Your task to perform on an android device: see creations saved in the google photos Image 0: 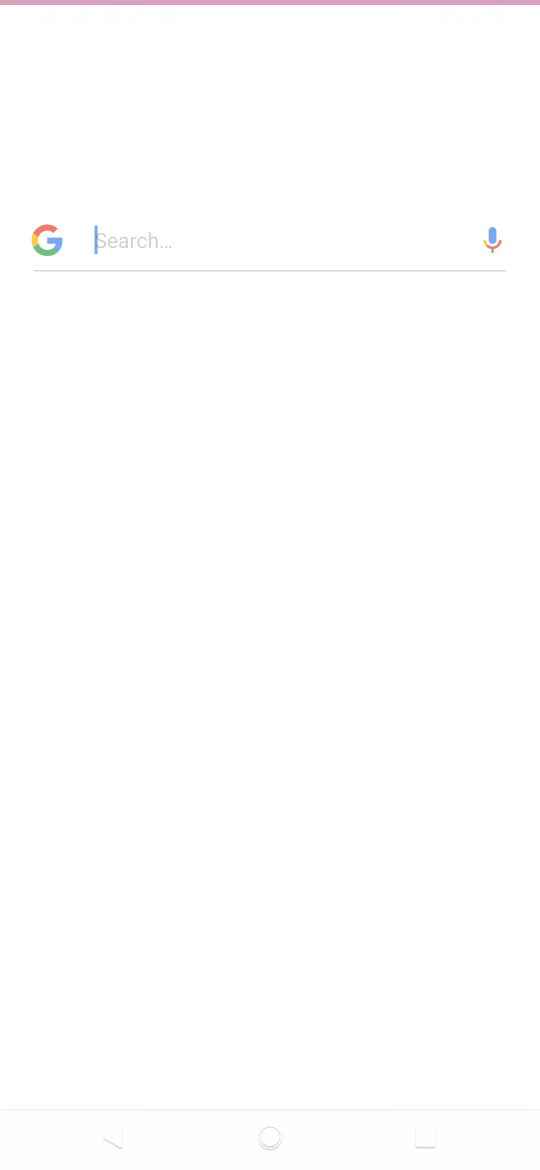
Step 0: press home button
Your task to perform on an android device: see creations saved in the google photos Image 1: 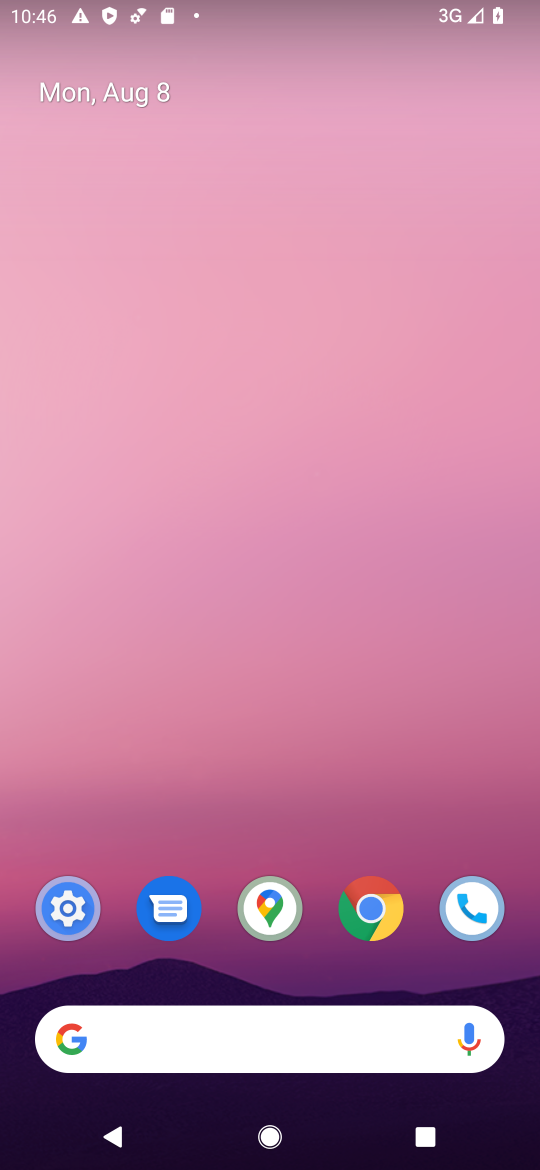
Step 1: drag from (318, 860) to (332, 14)
Your task to perform on an android device: see creations saved in the google photos Image 2: 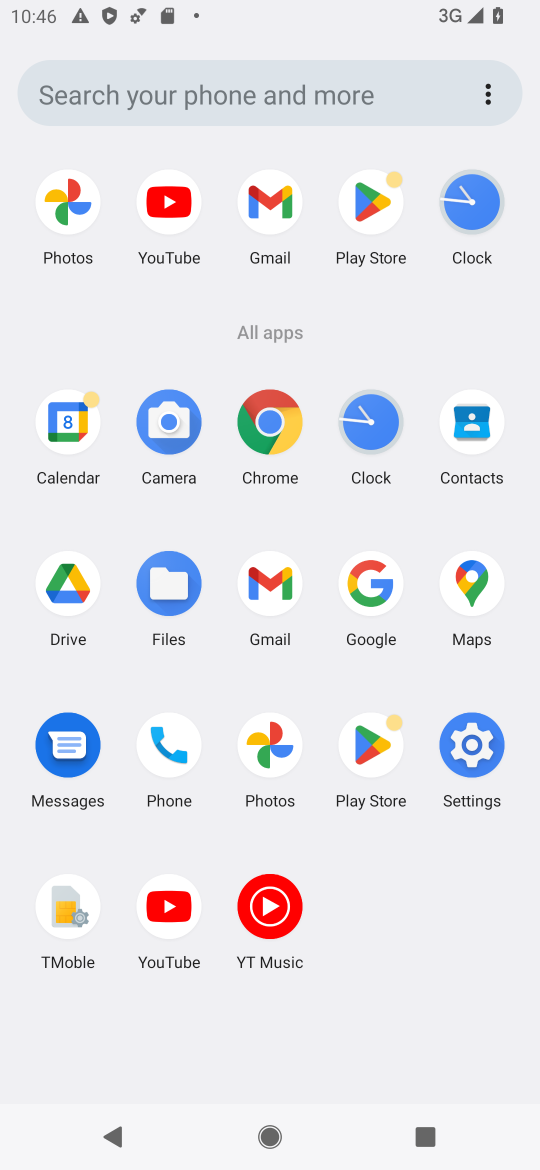
Step 2: click (263, 729)
Your task to perform on an android device: see creations saved in the google photos Image 3: 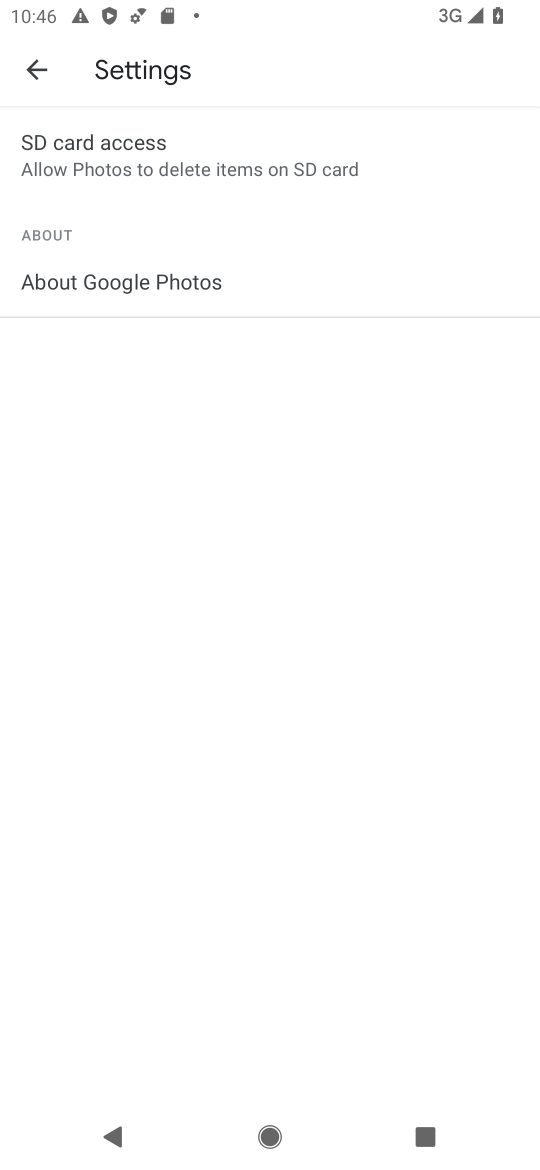
Step 3: click (33, 64)
Your task to perform on an android device: see creations saved in the google photos Image 4: 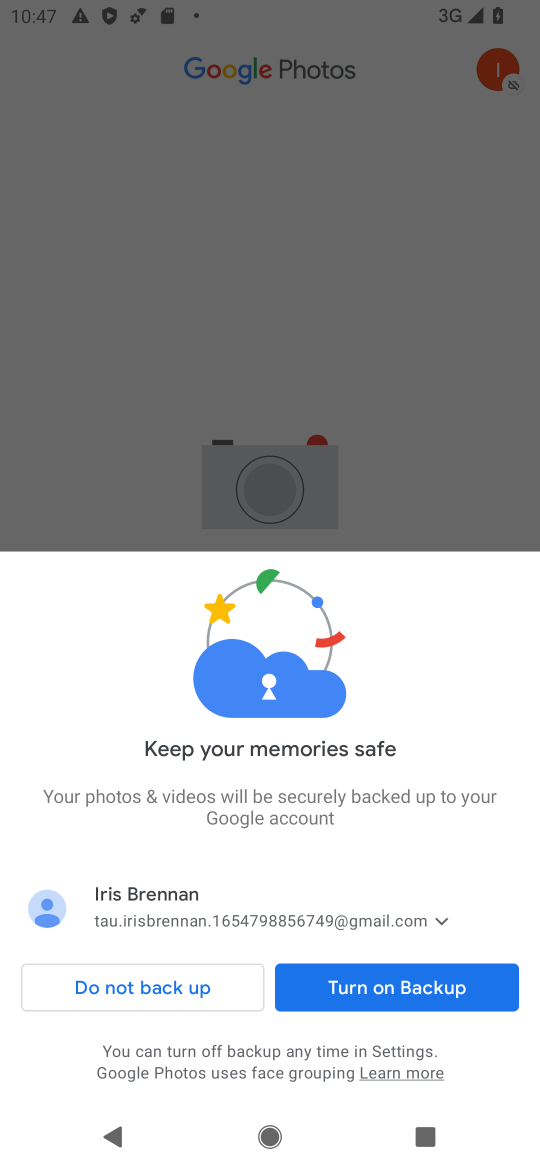
Step 4: click (384, 983)
Your task to perform on an android device: see creations saved in the google photos Image 5: 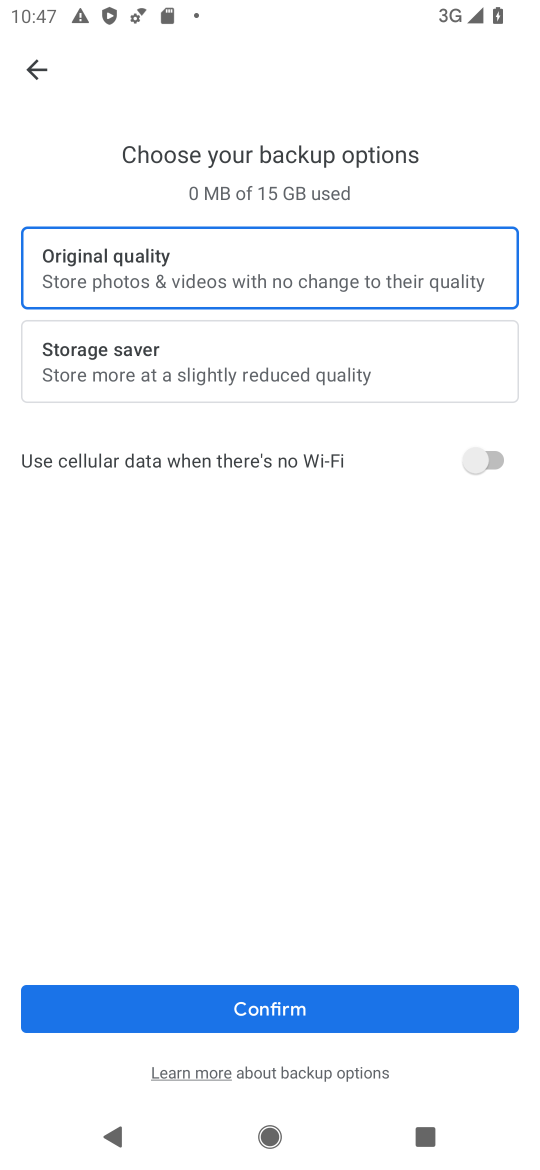
Step 5: click (187, 352)
Your task to perform on an android device: see creations saved in the google photos Image 6: 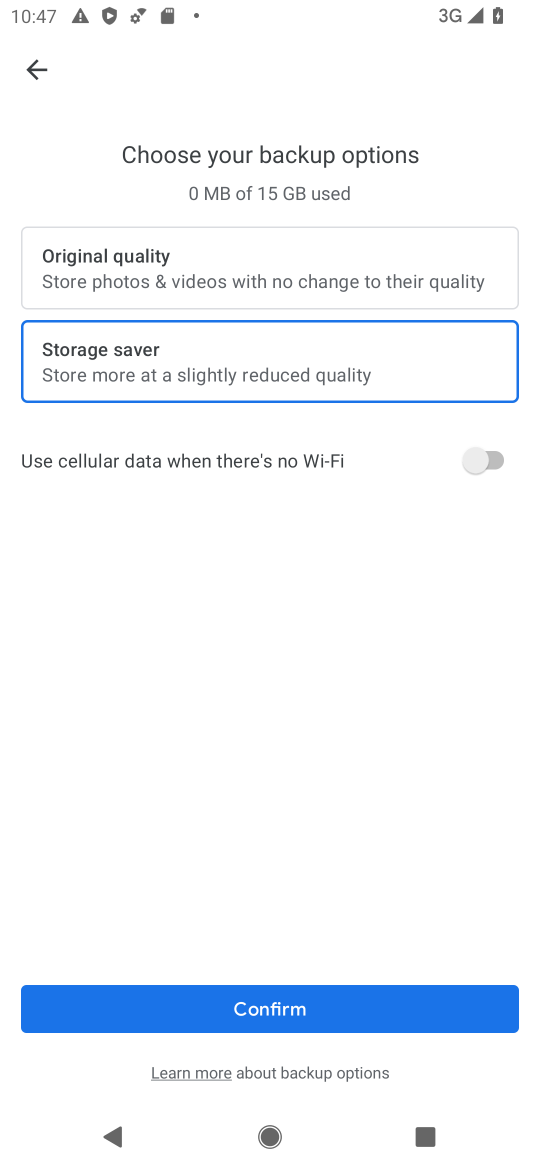
Step 6: click (271, 1012)
Your task to perform on an android device: see creations saved in the google photos Image 7: 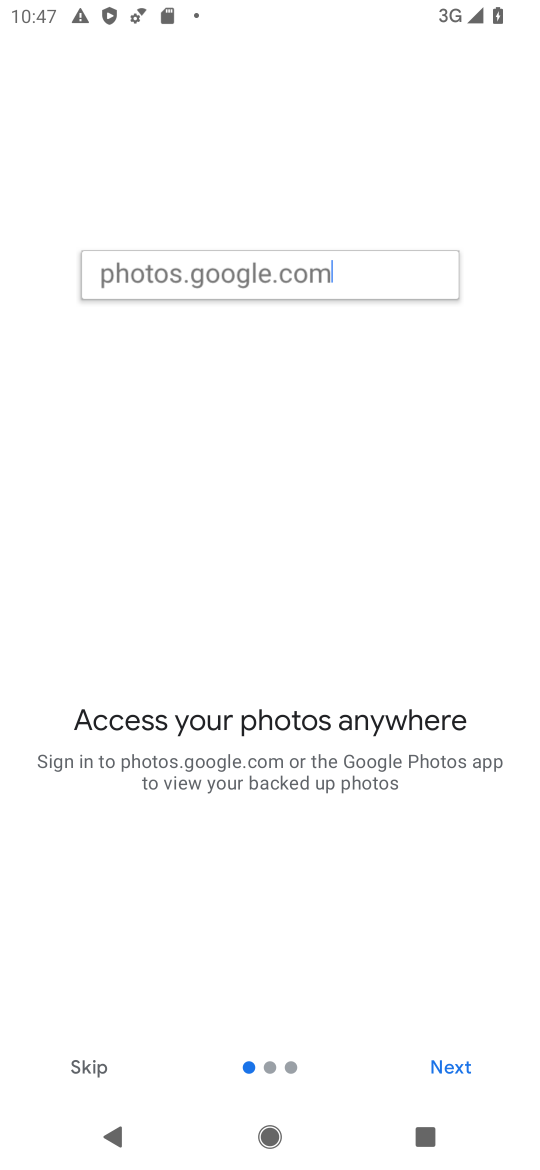
Step 7: click (462, 1056)
Your task to perform on an android device: see creations saved in the google photos Image 8: 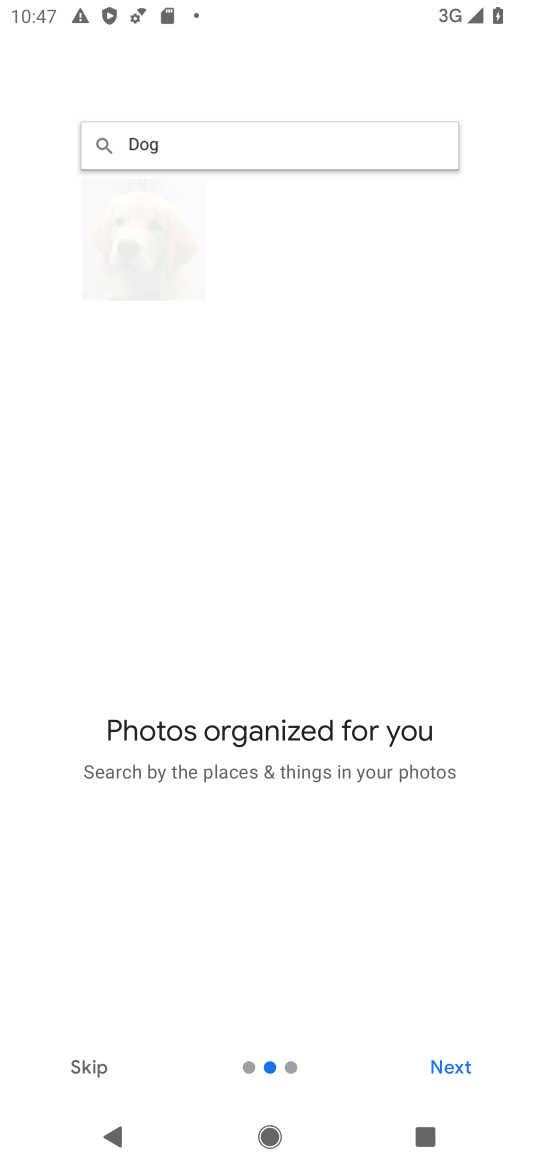
Step 8: click (449, 1065)
Your task to perform on an android device: see creations saved in the google photos Image 9: 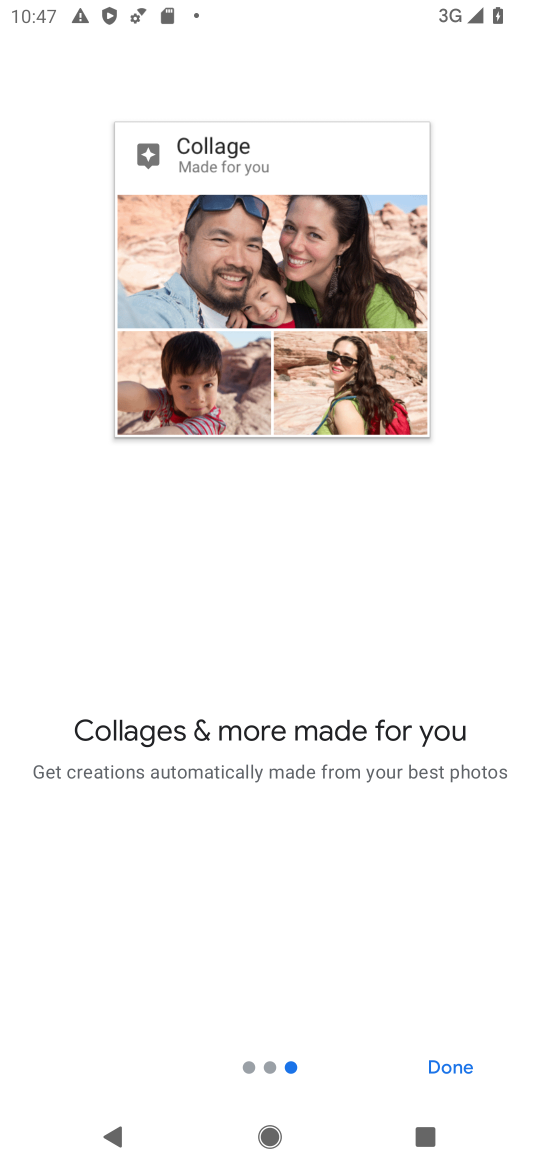
Step 9: click (460, 1055)
Your task to perform on an android device: see creations saved in the google photos Image 10: 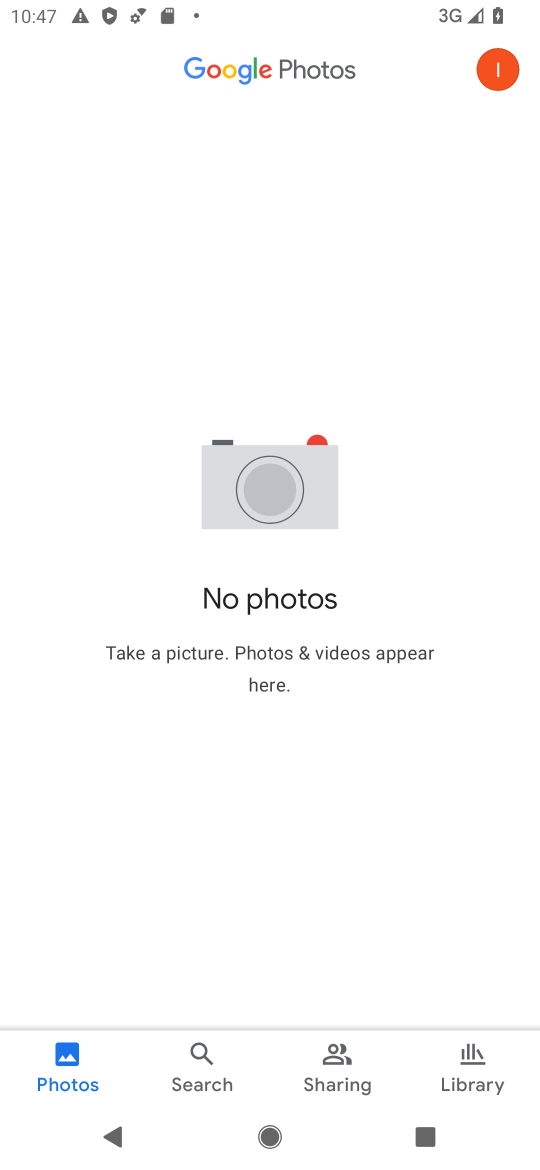
Step 10: click (196, 1049)
Your task to perform on an android device: see creations saved in the google photos Image 11: 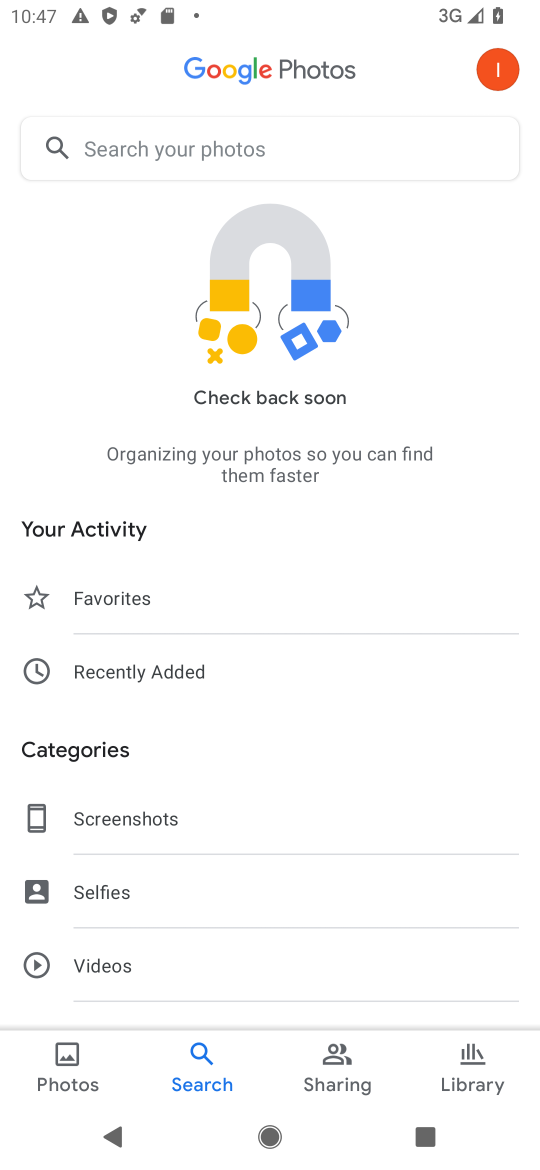
Step 11: drag from (196, 907) to (266, 255)
Your task to perform on an android device: see creations saved in the google photos Image 12: 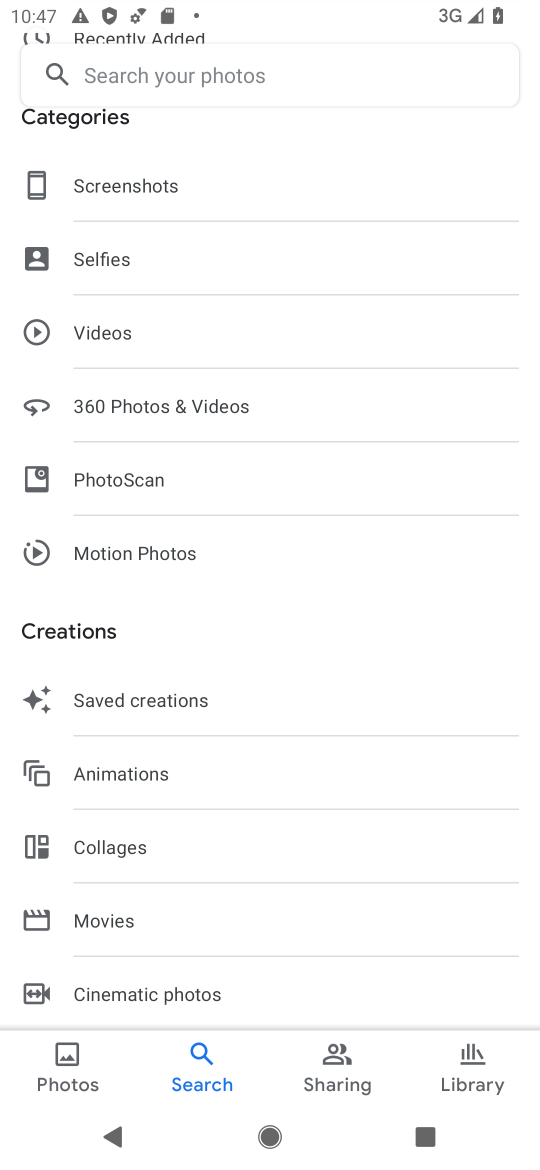
Step 12: click (201, 696)
Your task to perform on an android device: see creations saved in the google photos Image 13: 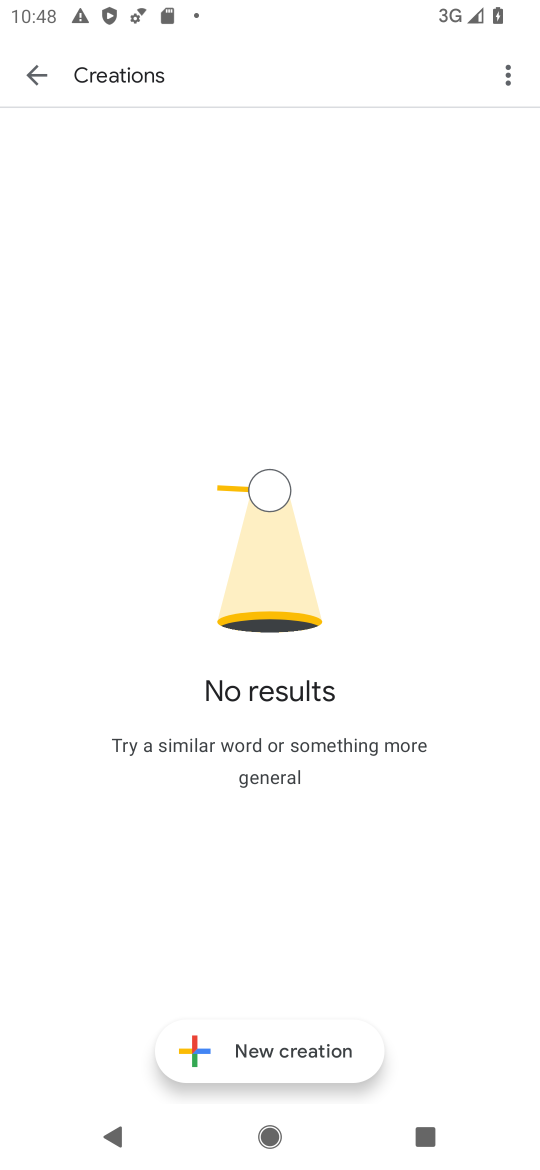
Step 13: task complete